Your task to perform on an android device: Go to notification settings Image 0: 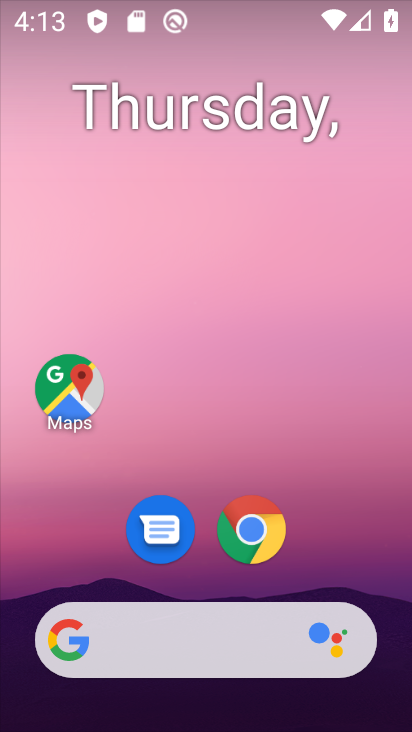
Step 0: drag from (154, 709) to (185, 94)
Your task to perform on an android device: Go to notification settings Image 1: 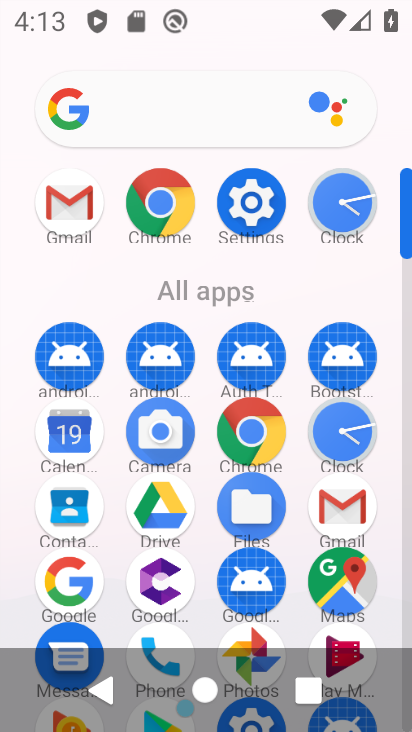
Step 1: click (246, 198)
Your task to perform on an android device: Go to notification settings Image 2: 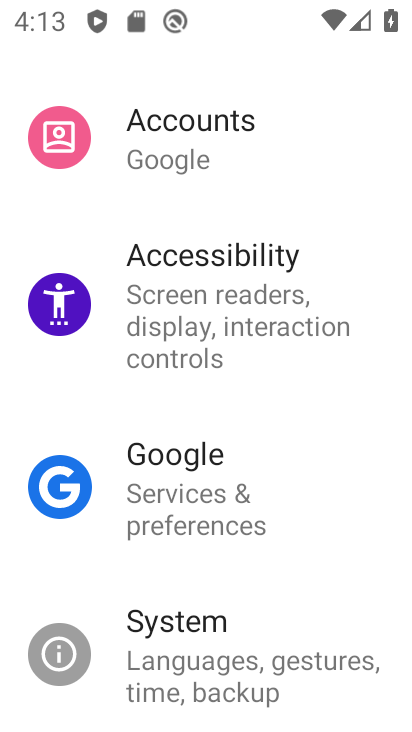
Step 2: drag from (238, 188) to (231, 597)
Your task to perform on an android device: Go to notification settings Image 3: 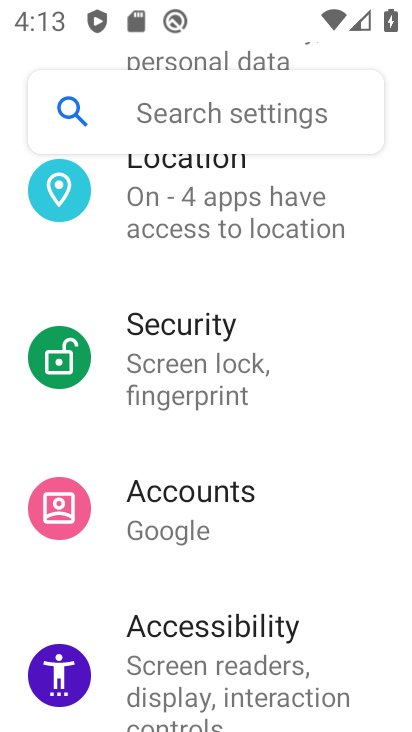
Step 3: drag from (190, 256) to (180, 607)
Your task to perform on an android device: Go to notification settings Image 4: 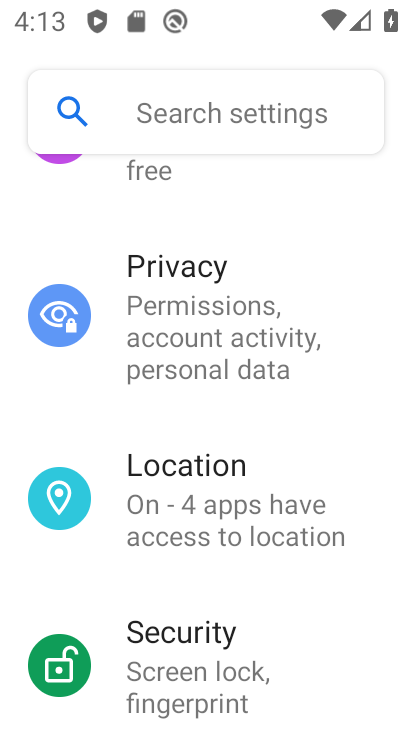
Step 4: drag from (176, 246) to (208, 632)
Your task to perform on an android device: Go to notification settings Image 5: 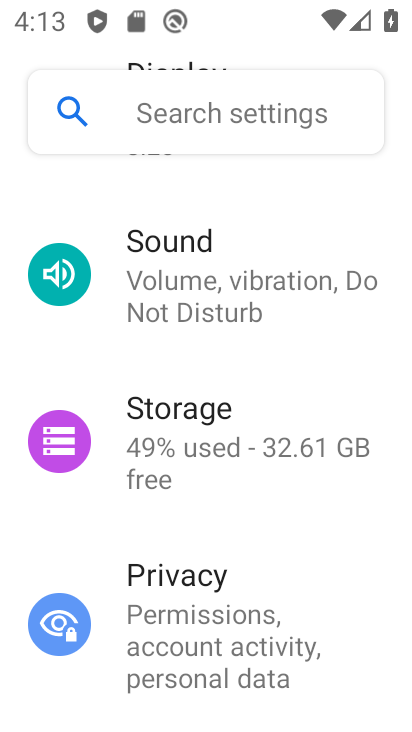
Step 5: drag from (208, 198) to (219, 581)
Your task to perform on an android device: Go to notification settings Image 6: 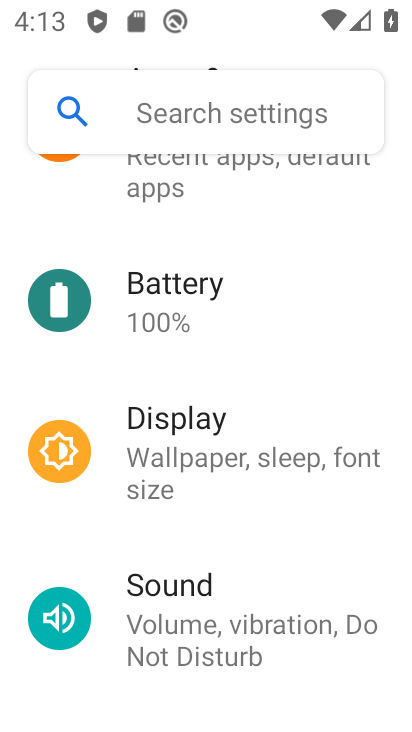
Step 6: drag from (208, 218) to (202, 633)
Your task to perform on an android device: Go to notification settings Image 7: 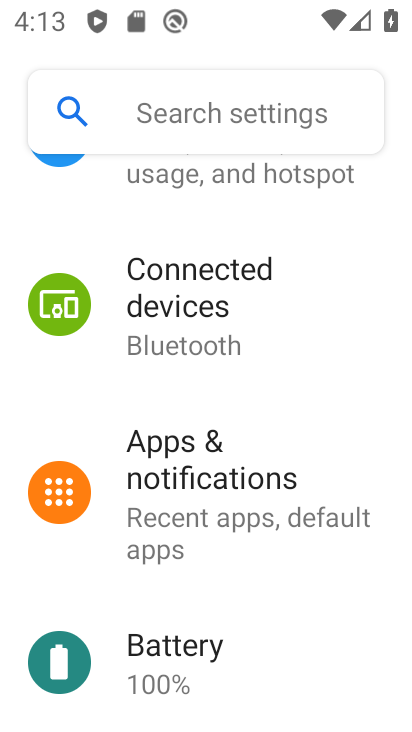
Step 7: click (175, 484)
Your task to perform on an android device: Go to notification settings Image 8: 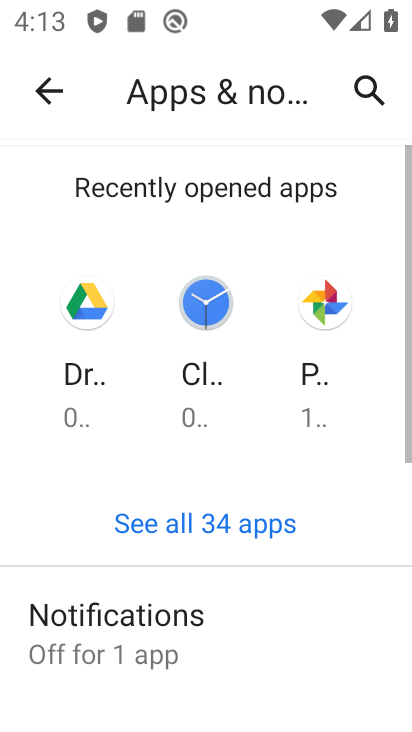
Step 8: drag from (189, 699) to (193, 360)
Your task to perform on an android device: Go to notification settings Image 9: 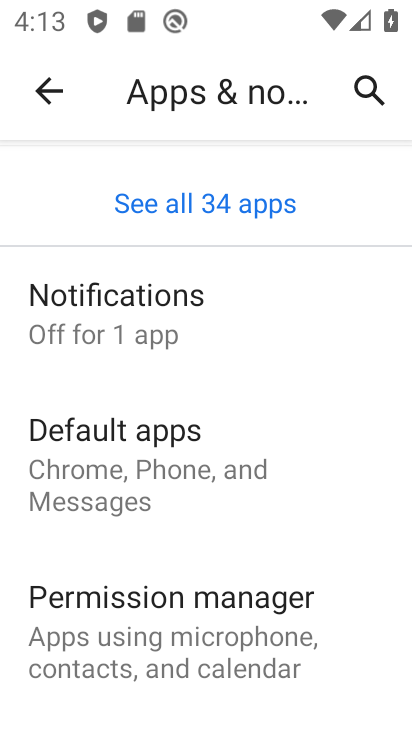
Step 9: click (87, 318)
Your task to perform on an android device: Go to notification settings Image 10: 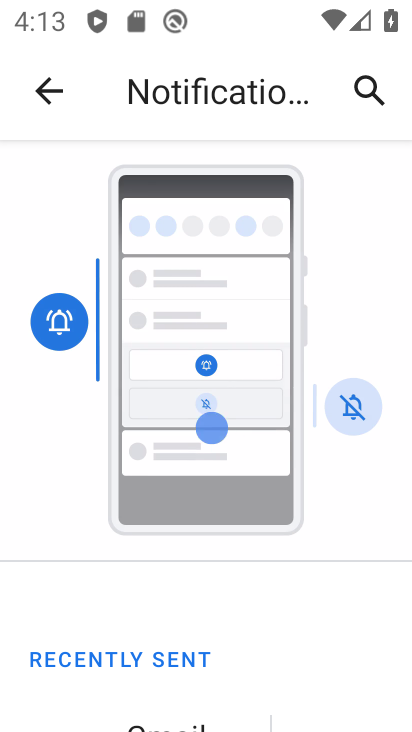
Step 10: task complete